Your task to perform on an android device: open a new tab in the chrome app Image 0: 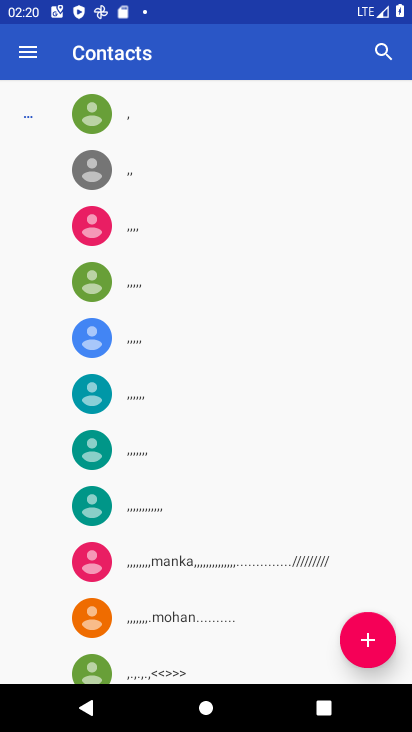
Step 0: press home button
Your task to perform on an android device: open a new tab in the chrome app Image 1: 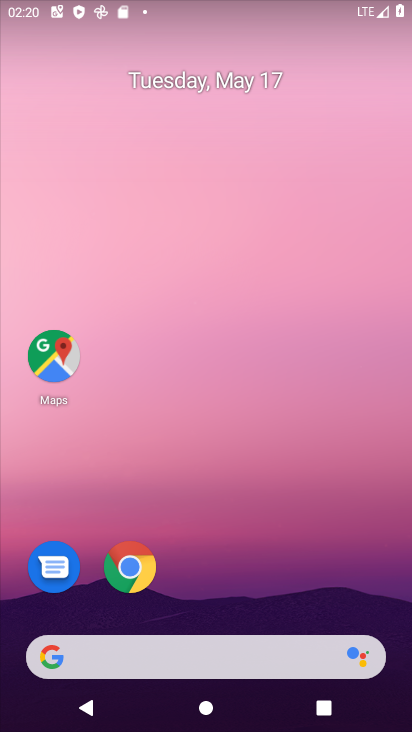
Step 1: click (132, 571)
Your task to perform on an android device: open a new tab in the chrome app Image 2: 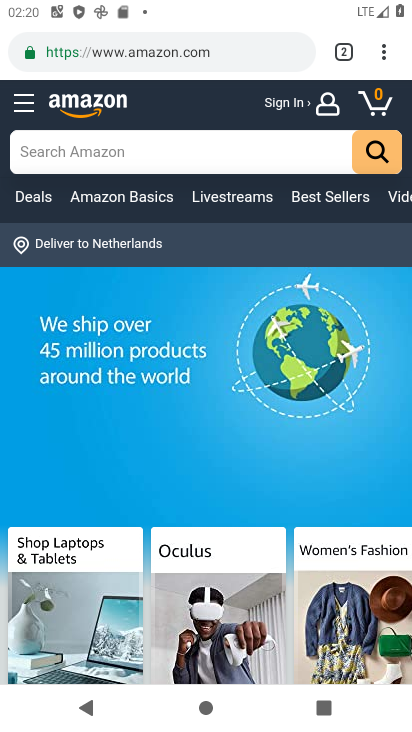
Step 2: click (384, 58)
Your task to perform on an android device: open a new tab in the chrome app Image 3: 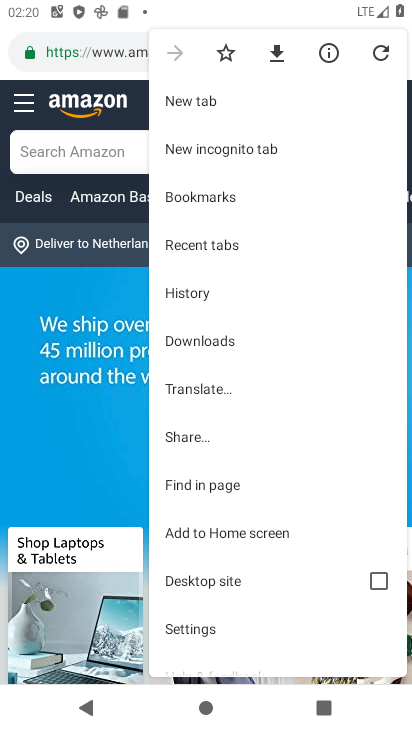
Step 3: click (186, 95)
Your task to perform on an android device: open a new tab in the chrome app Image 4: 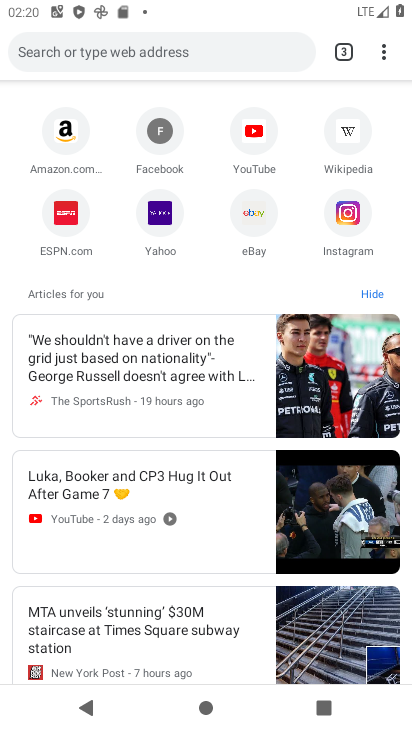
Step 4: task complete